Your task to perform on an android device: open a bookmark in the chrome app Image 0: 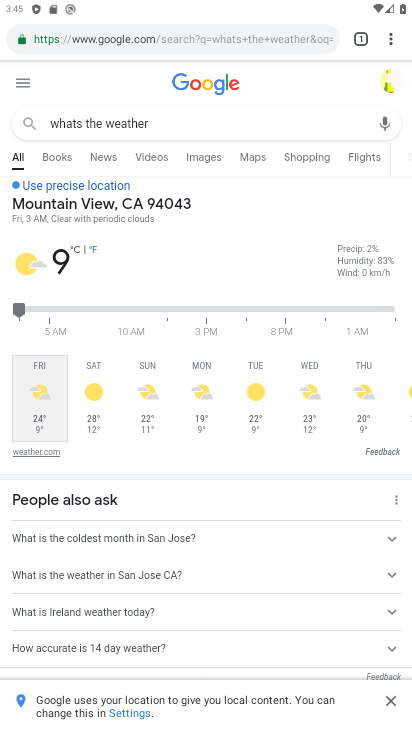
Step 0: drag from (391, 37) to (329, 145)
Your task to perform on an android device: open a bookmark in the chrome app Image 1: 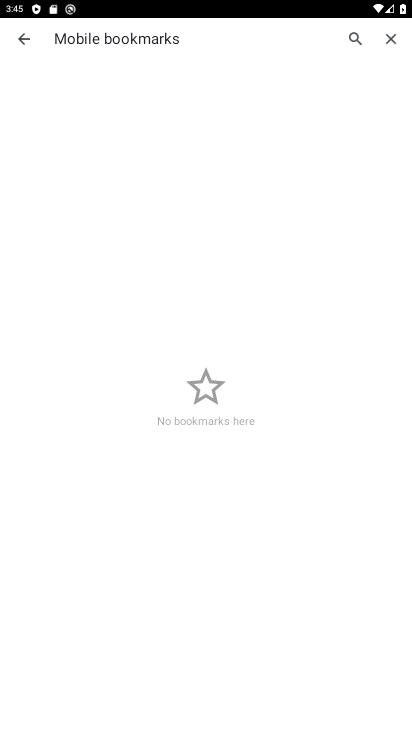
Step 1: task complete